Your task to perform on an android device: Check the news Image 0: 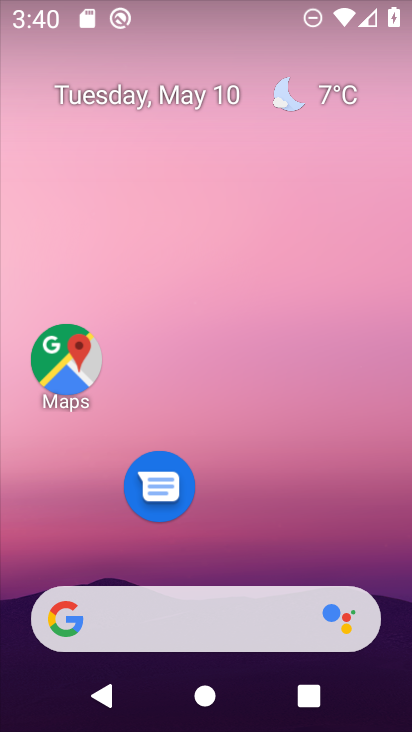
Step 0: drag from (296, 528) to (0, 315)
Your task to perform on an android device: Check the news Image 1: 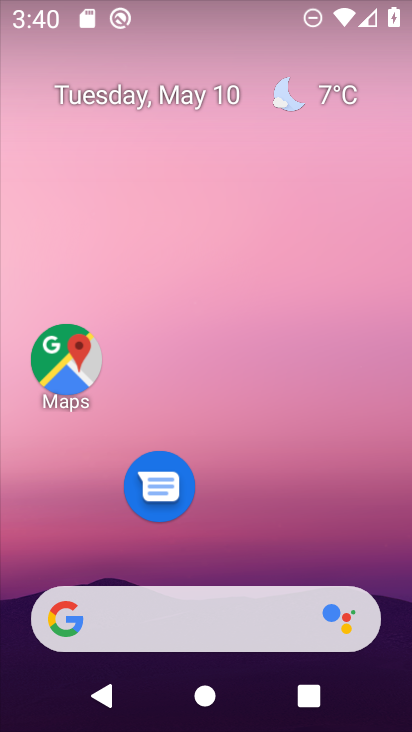
Step 1: drag from (272, 501) to (246, 22)
Your task to perform on an android device: Check the news Image 2: 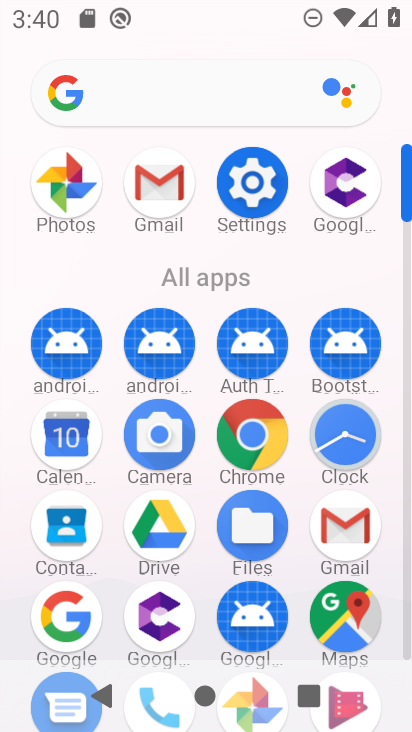
Step 2: drag from (3, 561) to (1, 259)
Your task to perform on an android device: Check the news Image 3: 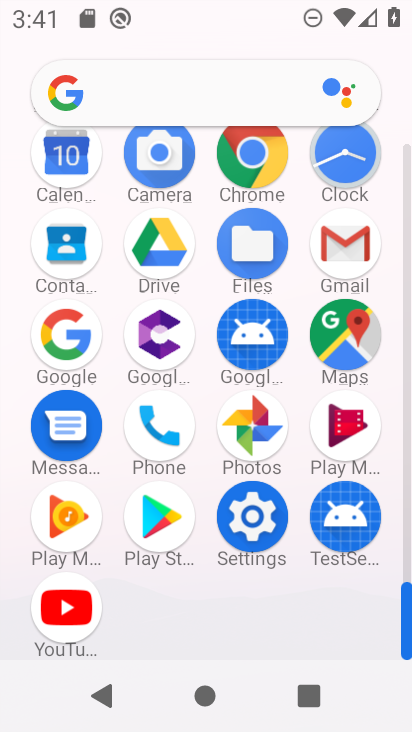
Step 3: click (254, 157)
Your task to perform on an android device: Check the news Image 4: 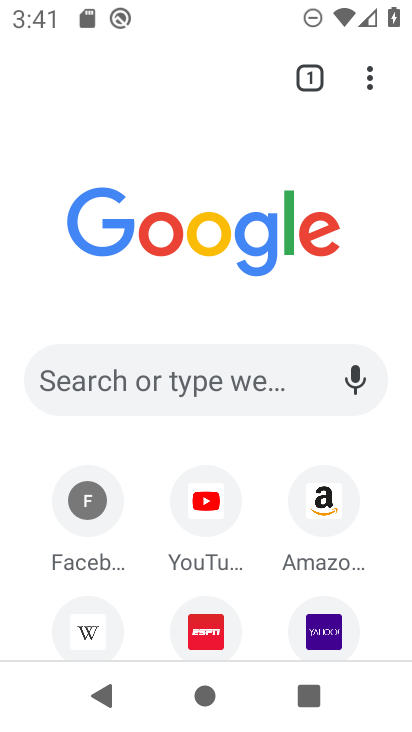
Step 4: task complete